Your task to perform on an android device: Toggle the flashlight Image 0: 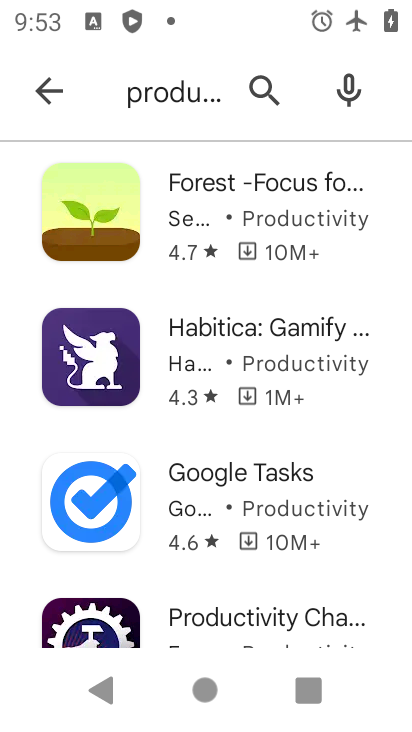
Step 0: press home button
Your task to perform on an android device: Toggle the flashlight Image 1: 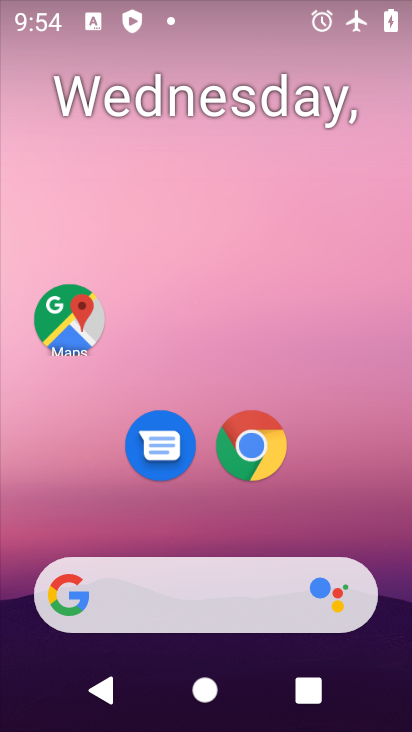
Step 1: drag from (403, 221) to (387, 145)
Your task to perform on an android device: Toggle the flashlight Image 2: 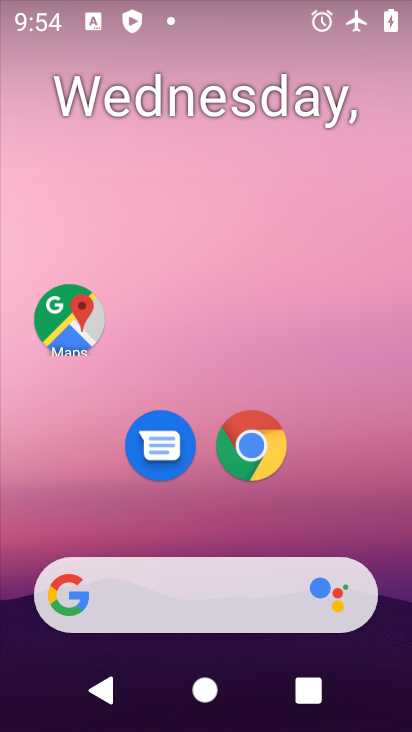
Step 2: drag from (392, 614) to (396, 99)
Your task to perform on an android device: Toggle the flashlight Image 3: 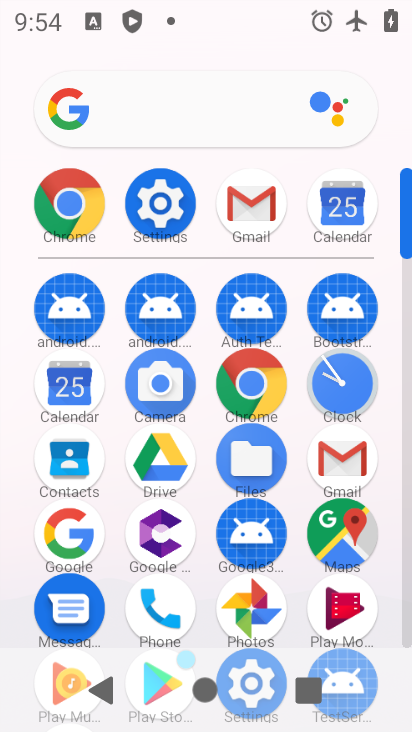
Step 3: drag from (401, 590) to (326, 14)
Your task to perform on an android device: Toggle the flashlight Image 4: 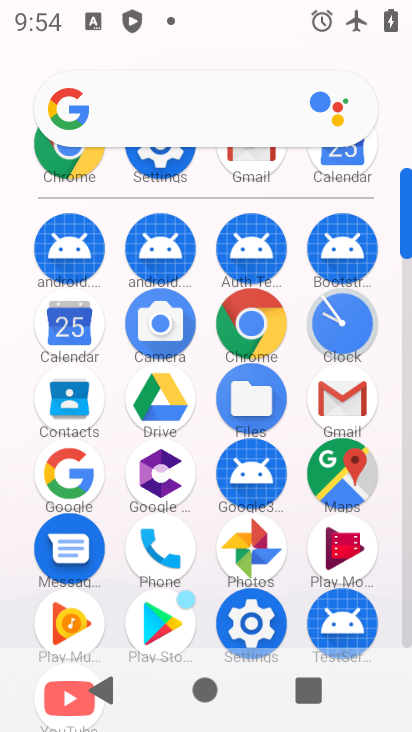
Step 4: click (250, 613)
Your task to perform on an android device: Toggle the flashlight Image 5: 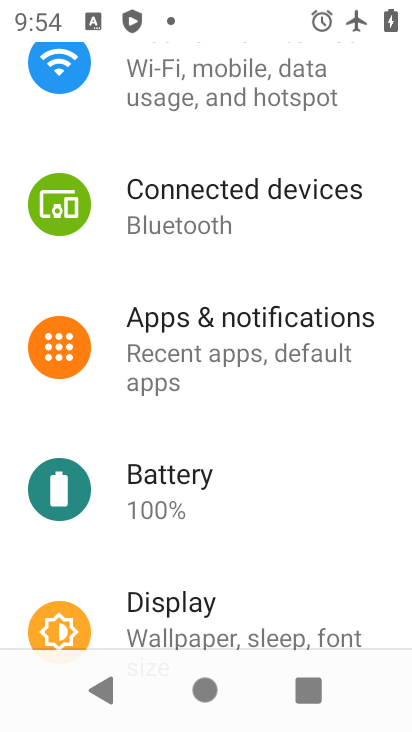
Step 5: task complete